Your task to perform on an android device: delete the emails in spam in the gmail app Image 0: 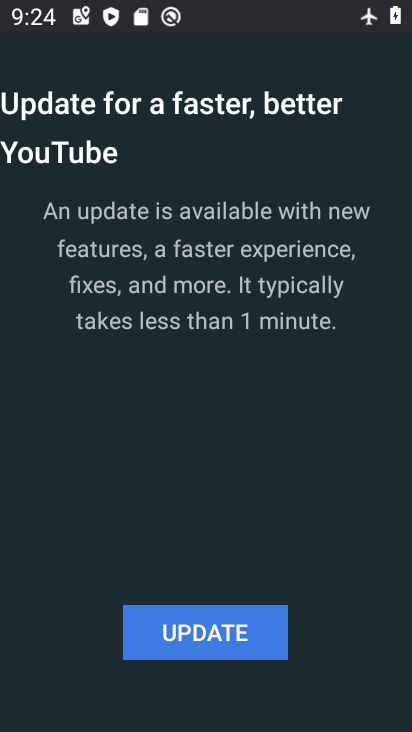
Step 0: press home button
Your task to perform on an android device: delete the emails in spam in the gmail app Image 1: 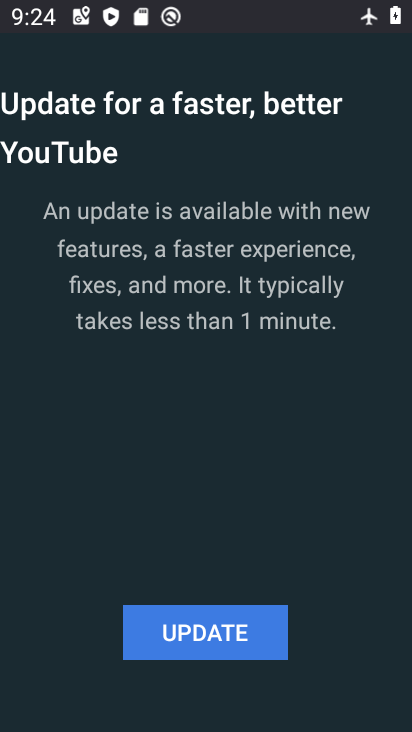
Step 1: press home button
Your task to perform on an android device: delete the emails in spam in the gmail app Image 2: 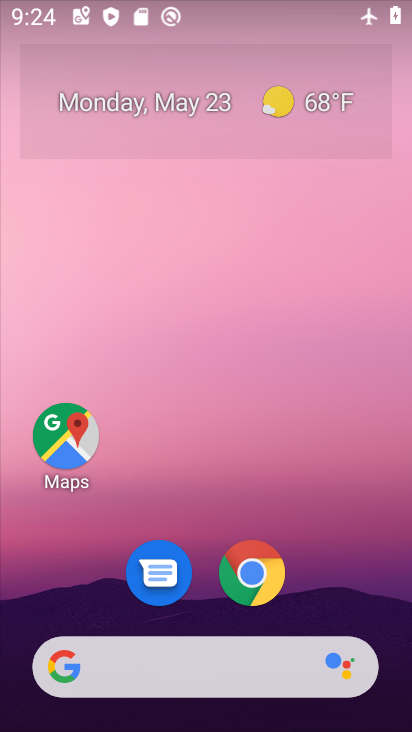
Step 2: drag from (237, 684) to (304, 41)
Your task to perform on an android device: delete the emails in spam in the gmail app Image 3: 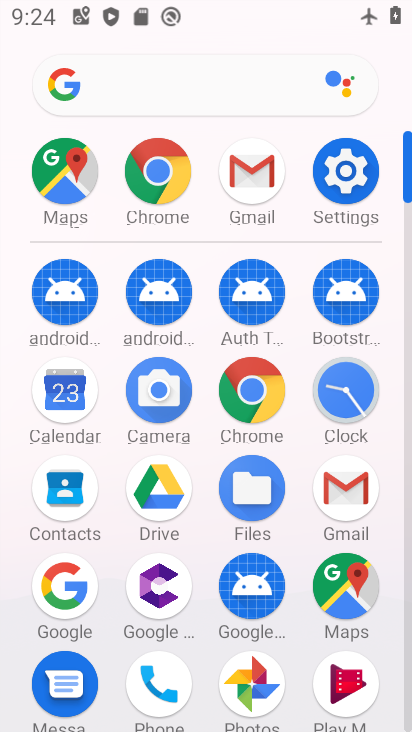
Step 3: click (345, 508)
Your task to perform on an android device: delete the emails in spam in the gmail app Image 4: 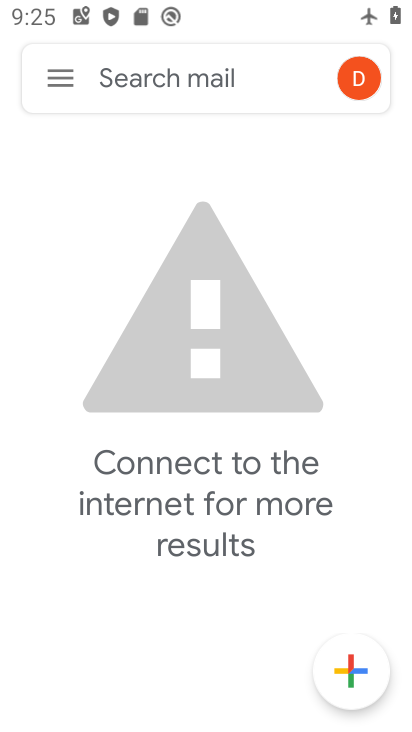
Step 4: click (48, 89)
Your task to perform on an android device: delete the emails in spam in the gmail app Image 5: 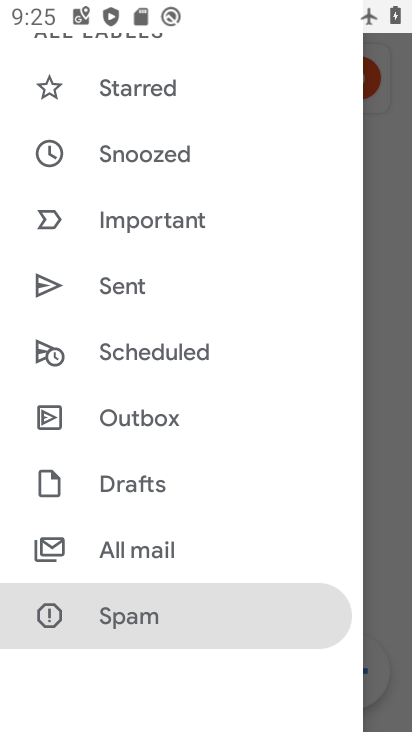
Step 5: click (120, 630)
Your task to perform on an android device: delete the emails in spam in the gmail app Image 6: 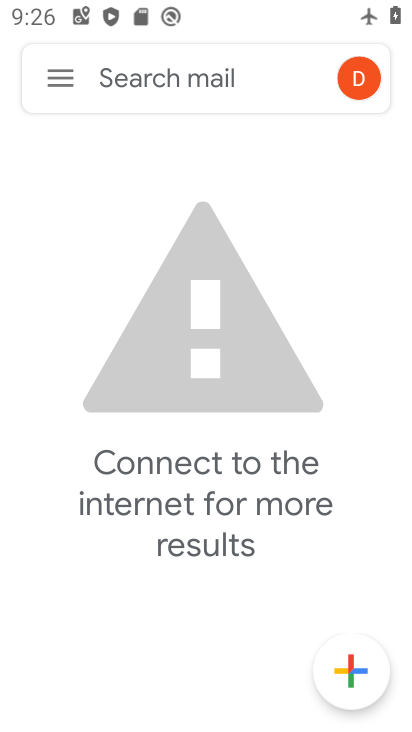
Step 6: task complete